Your task to perform on an android device: Open Maps and search for coffee Image 0: 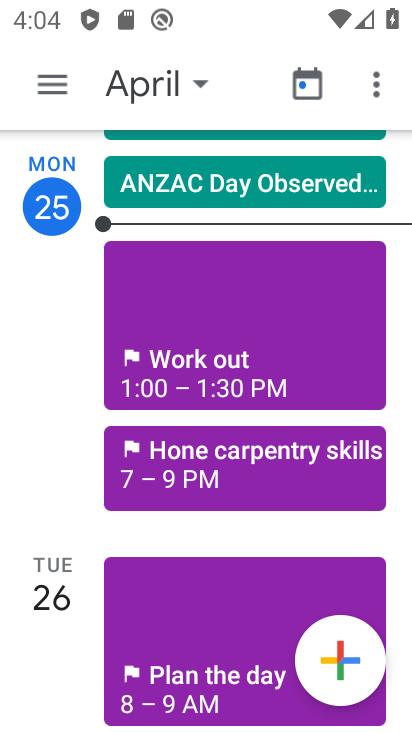
Step 0: drag from (107, 605) to (186, 386)
Your task to perform on an android device: Open Maps and search for coffee Image 1: 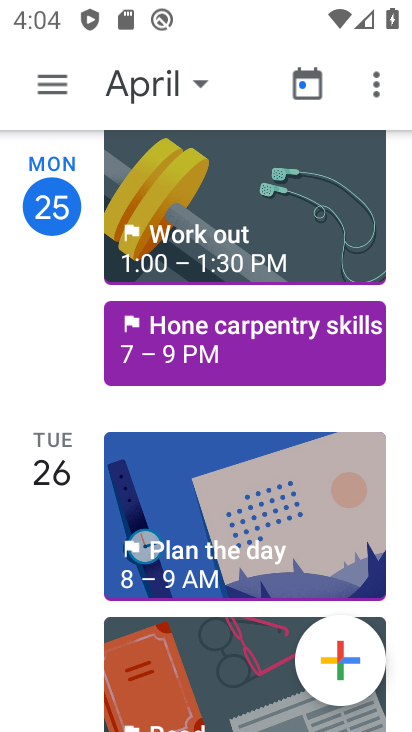
Step 1: press back button
Your task to perform on an android device: Open Maps and search for coffee Image 2: 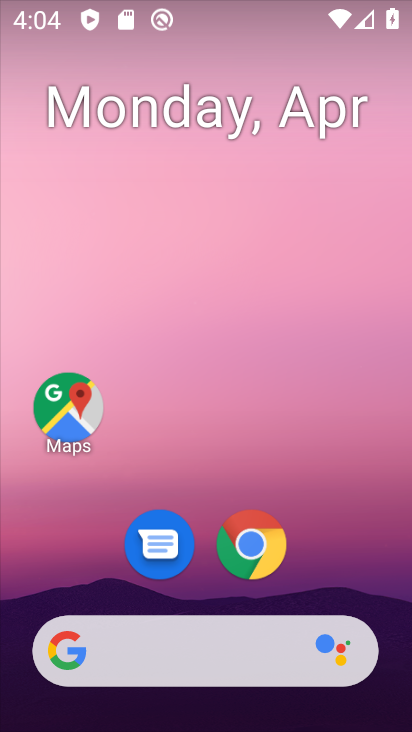
Step 2: drag from (99, 561) to (218, 69)
Your task to perform on an android device: Open Maps and search for coffee Image 3: 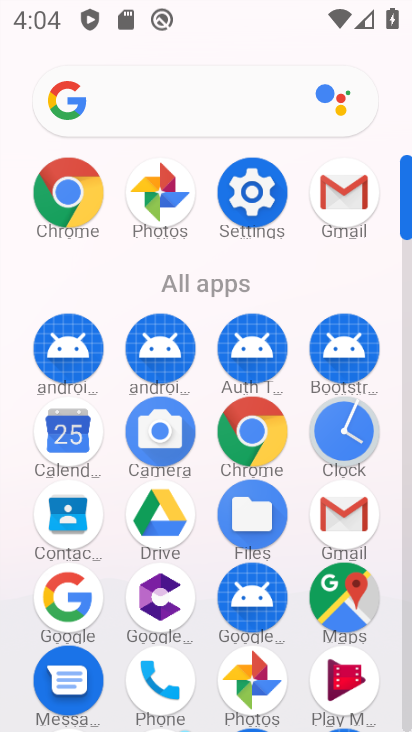
Step 3: click (354, 572)
Your task to perform on an android device: Open Maps and search for coffee Image 4: 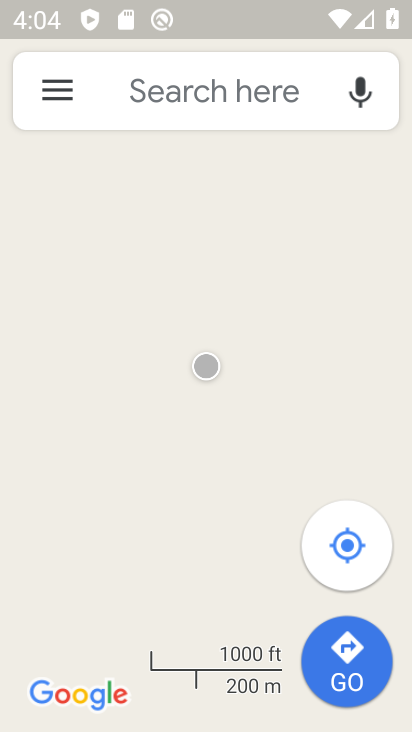
Step 4: click (204, 79)
Your task to perform on an android device: Open Maps and search for coffee Image 5: 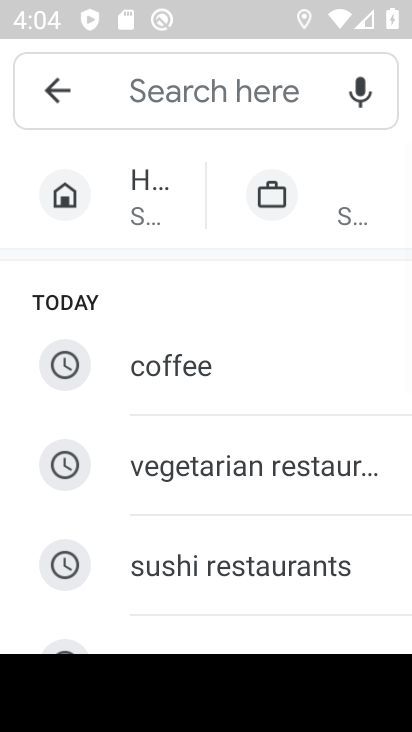
Step 5: type "Coffee"
Your task to perform on an android device: Open Maps and search for coffee Image 6: 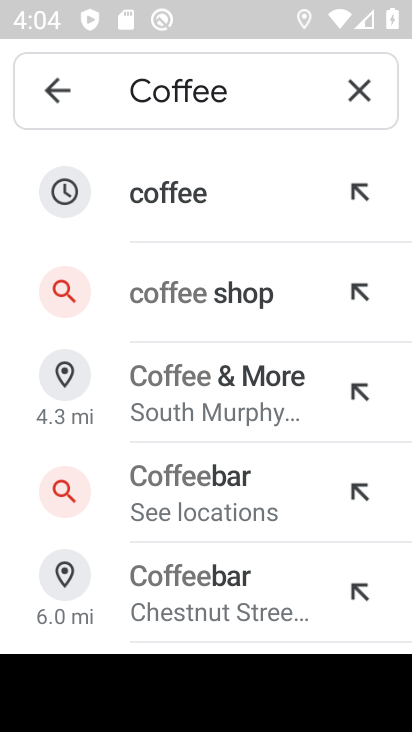
Step 6: click (250, 211)
Your task to perform on an android device: Open Maps and search for coffee Image 7: 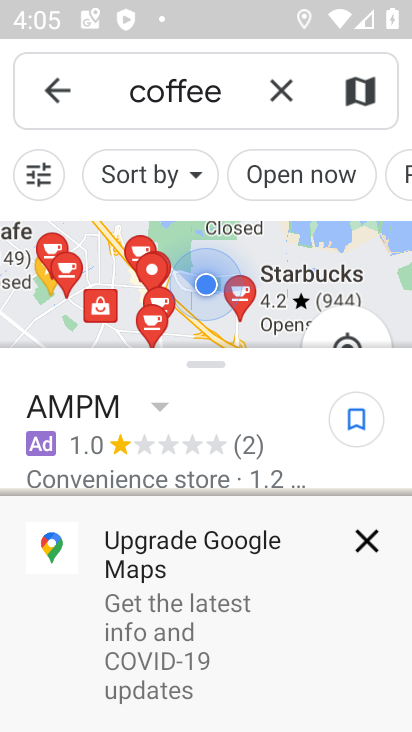
Step 7: click (375, 545)
Your task to perform on an android device: Open Maps and search for coffee Image 8: 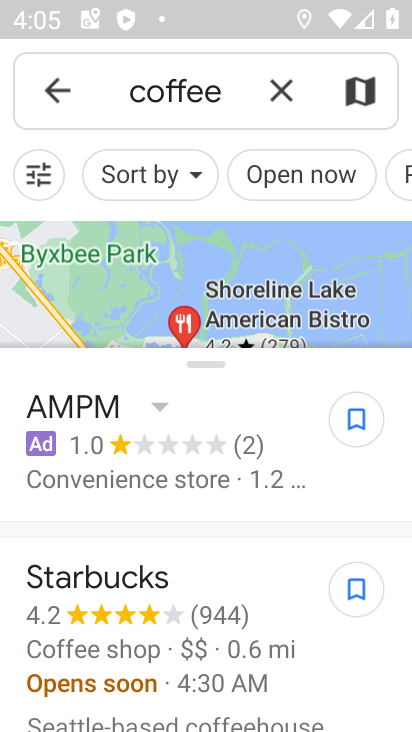
Step 8: task complete